Your task to perform on an android device: turn vacation reply on in the gmail app Image 0: 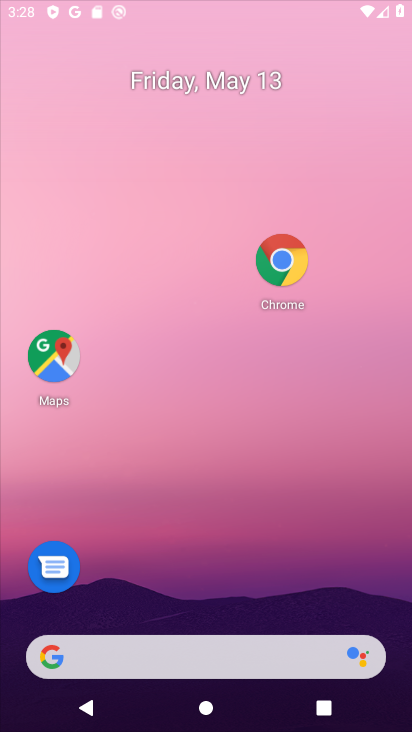
Step 0: click (404, 415)
Your task to perform on an android device: turn vacation reply on in the gmail app Image 1: 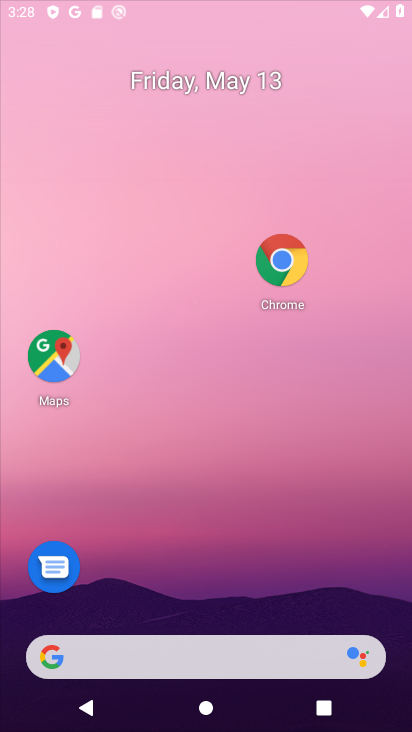
Step 1: drag from (234, 660) to (122, 170)
Your task to perform on an android device: turn vacation reply on in the gmail app Image 2: 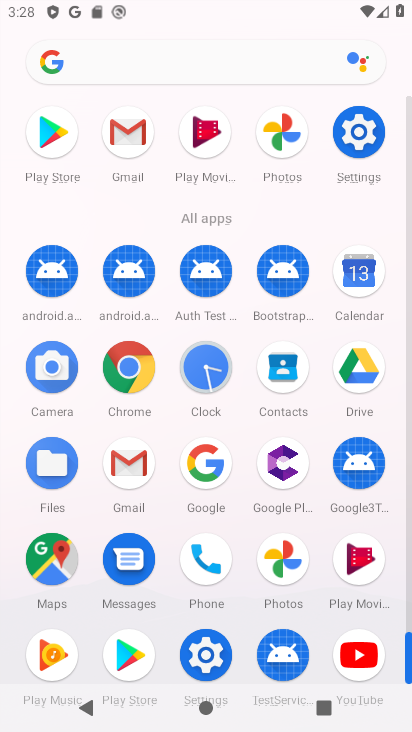
Step 2: click (109, 459)
Your task to perform on an android device: turn vacation reply on in the gmail app Image 3: 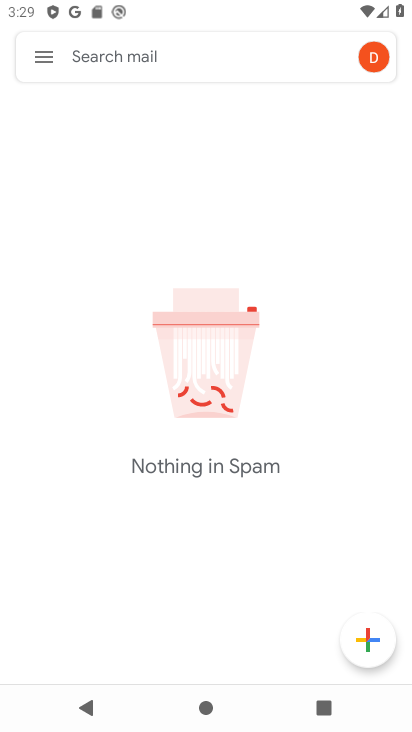
Step 3: press back button
Your task to perform on an android device: turn vacation reply on in the gmail app Image 4: 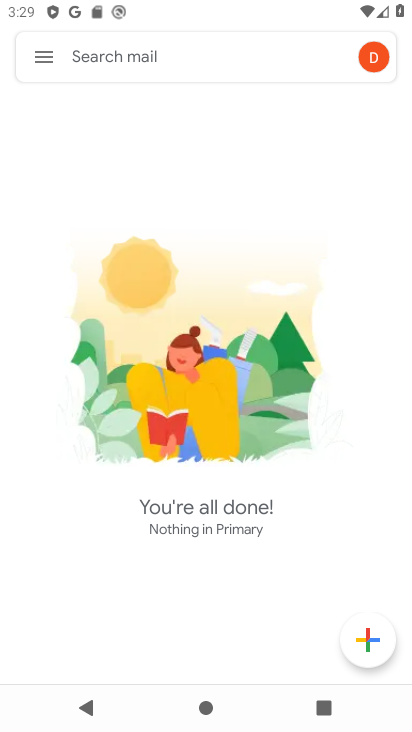
Step 4: click (46, 60)
Your task to perform on an android device: turn vacation reply on in the gmail app Image 5: 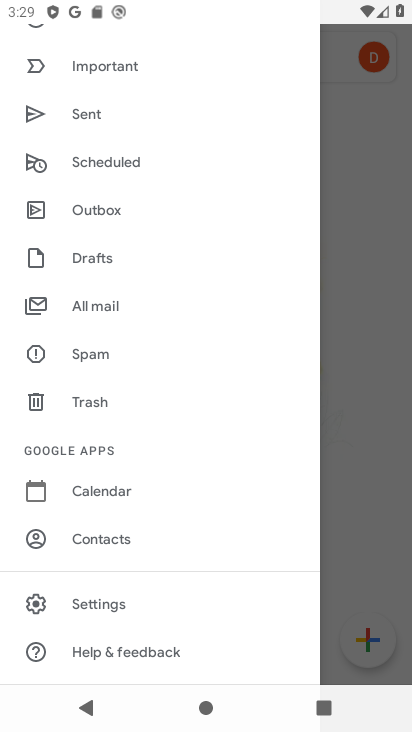
Step 5: drag from (112, 551) to (70, 125)
Your task to perform on an android device: turn vacation reply on in the gmail app Image 6: 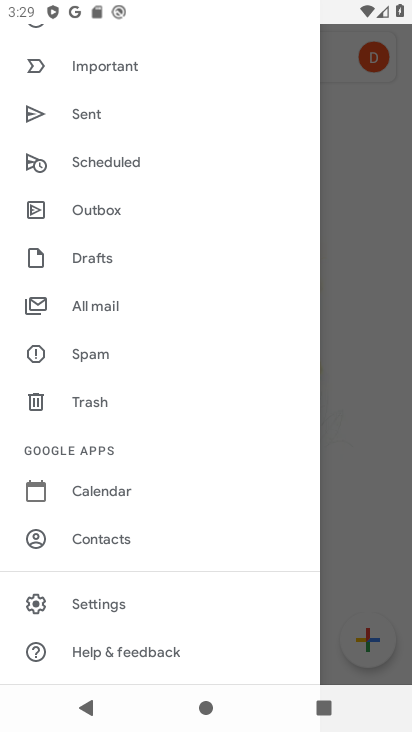
Step 6: click (110, 591)
Your task to perform on an android device: turn vacation reply on in the gmail app Image 7: 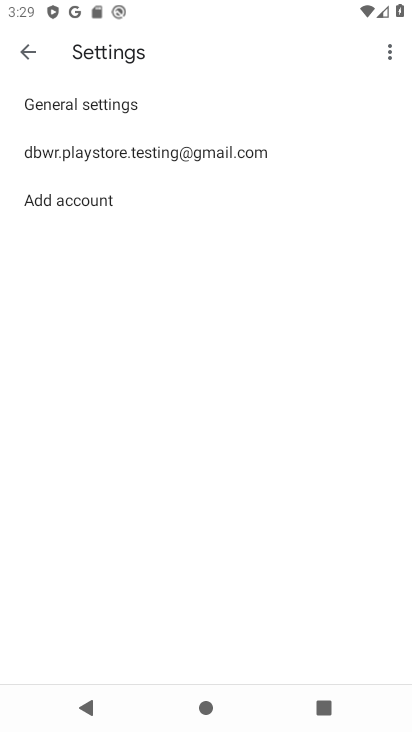
Step 7: click (103, 157)
Your task to perform on an android device: turn vacation reply on in the gmail app Image 8: 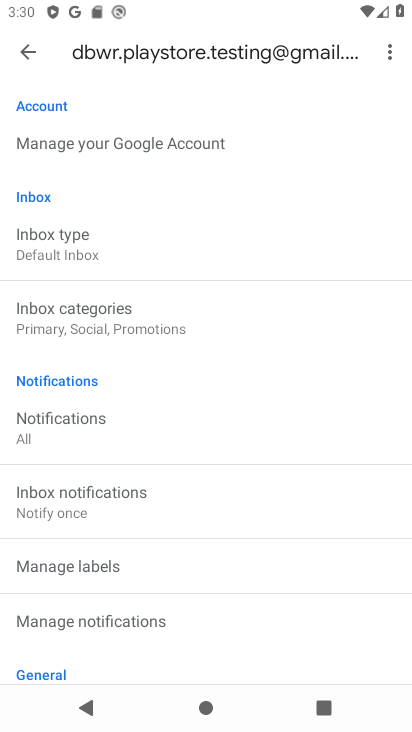
Step 8: drag from (110, 584) to (54, 221)
Your task to perform on an android device: turn vacation reply on in the gmail app Image 9: 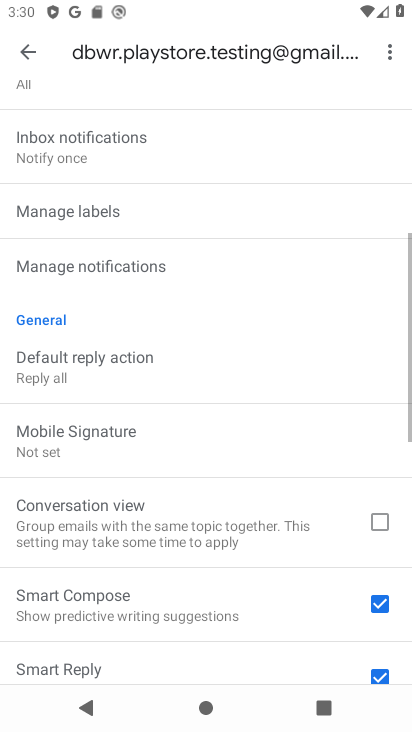
Step 9: drag from (130, 521) to (125, 131)
Your task to perform on an android device: turn vacation reply on in the gmail app Image 10: 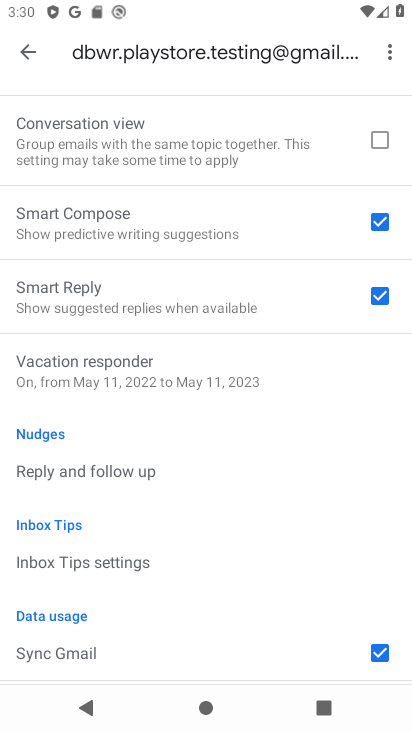
Step 10: click (80, 370)
Your task to perform on an android device: turn vacation reply on in the gmail app Image 11: 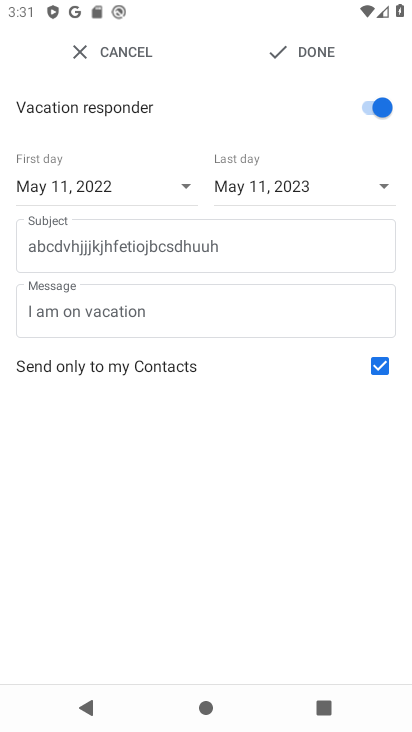
Step 11: task complete